Your task to perform on an android device: Go to Maps Image 0: 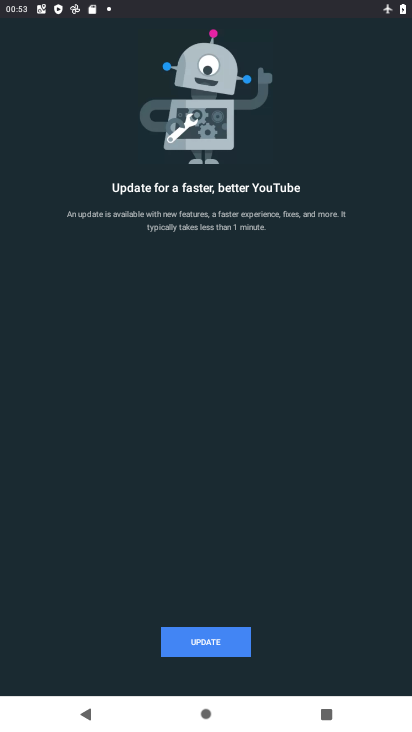
Step 0: press home button
Your task to perform on an android device: Go to Maps Image 1: 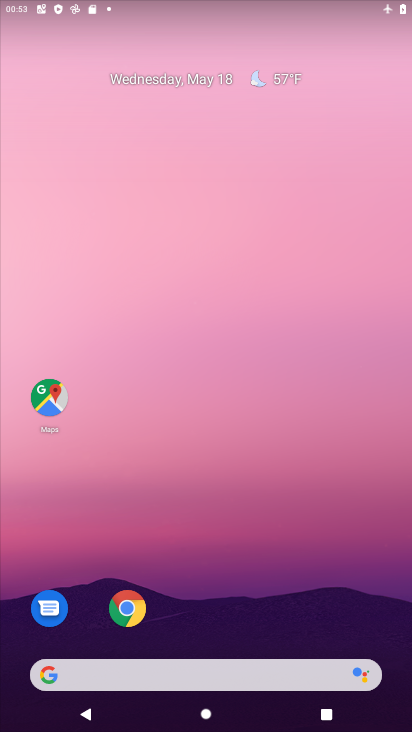
Step 1: click (40, 397)
Your task to perform on an android device: Go to Maps Image 2: 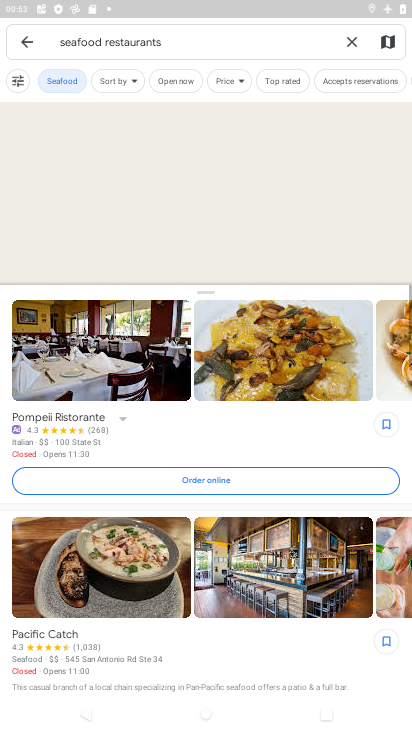
Step 2: task complete